Your task to perform on an android device: Open notification settings Image 0: 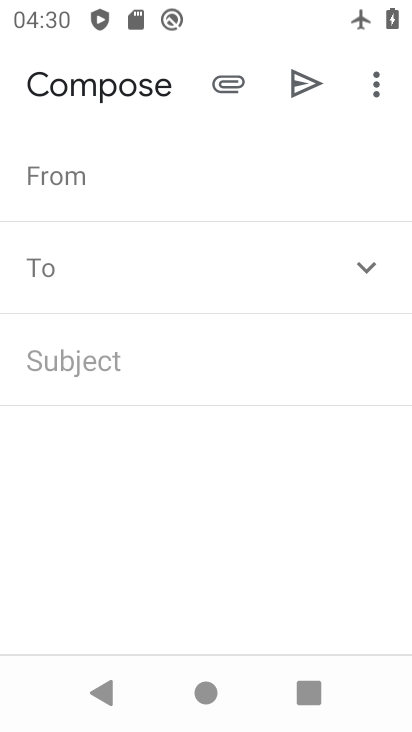
Step 0: click (234, 472)
Your task to perform on an android device: Open notification settings Image 1: 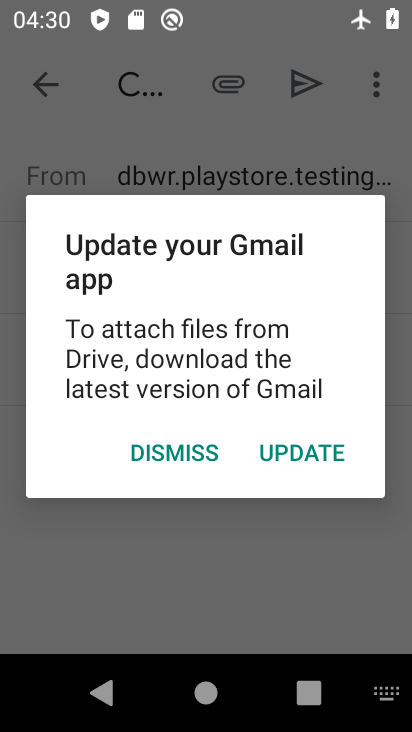
Step 1: press home button
Your task to perform on an android device: Open notification settings Image 2: 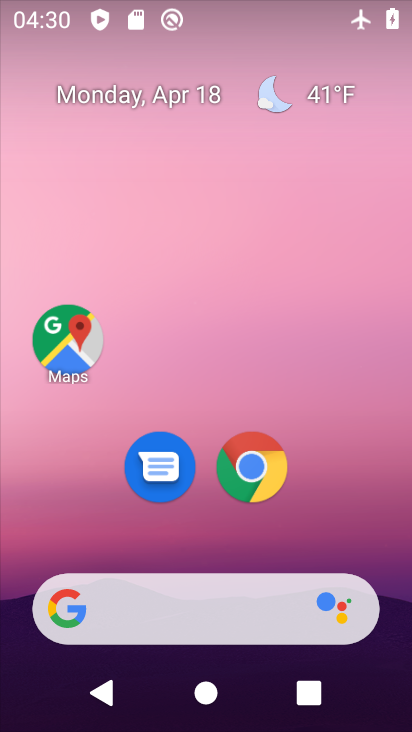
Step 2: drag from (187, 511) to (203, 307)
Your task to perform on an android device: Open notification settings Image 3: 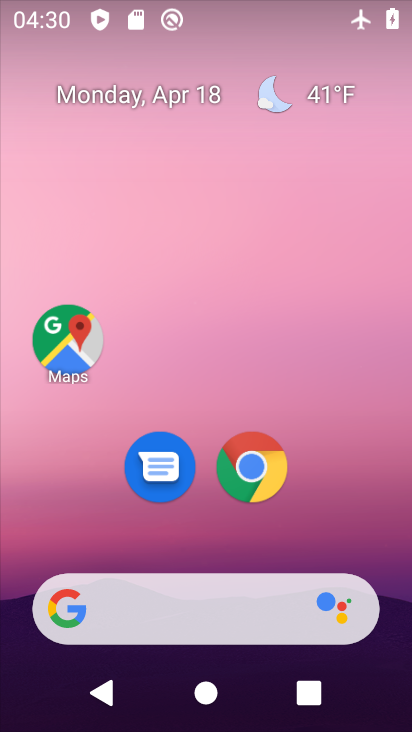
Step 3: drag from (213, 554) to (212, 199)
Your task to perform on an android device: Open notification settings Image 4: 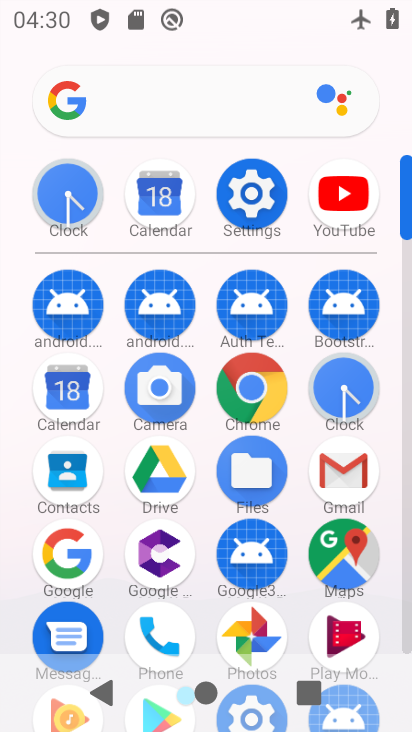
Step 4: click (226, 187)
Your task to perform on an android device: Open notification settings Image 5: 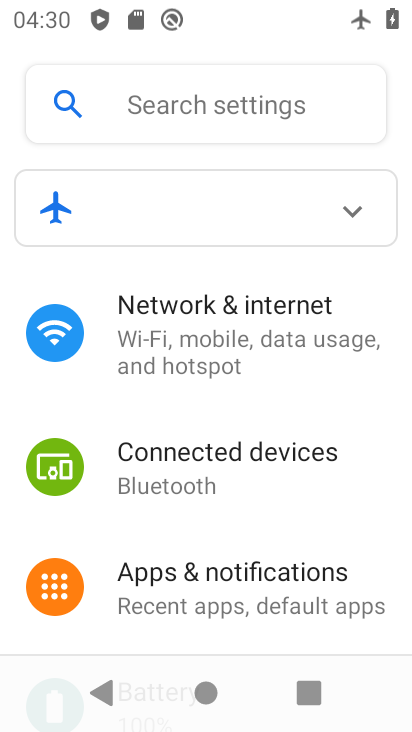
Step 5: drag from (223, 566) to (282, 340)
Your task to perform on an android device: Open notification settings Image 6: 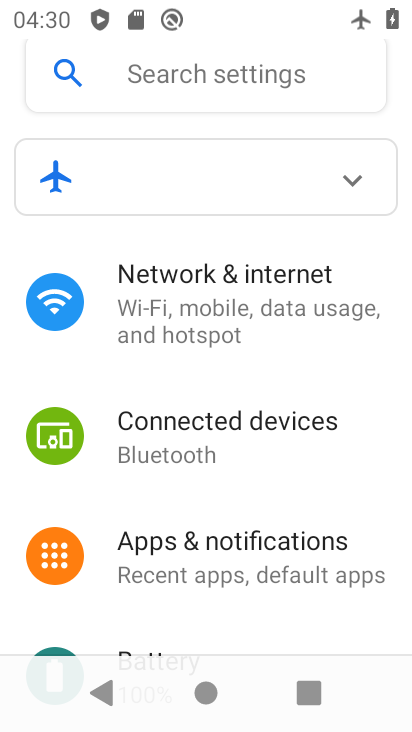
Step 6: click (254, 514)
Your task to perform on an android device: Open notification settings Image 7: 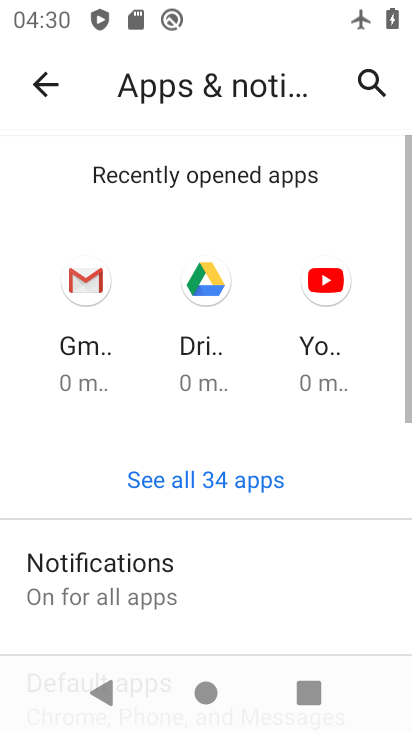
Step 7: drag from (253, 610) to (280, 305)
Your task to perform on an android device: Open notification settings Image 8: 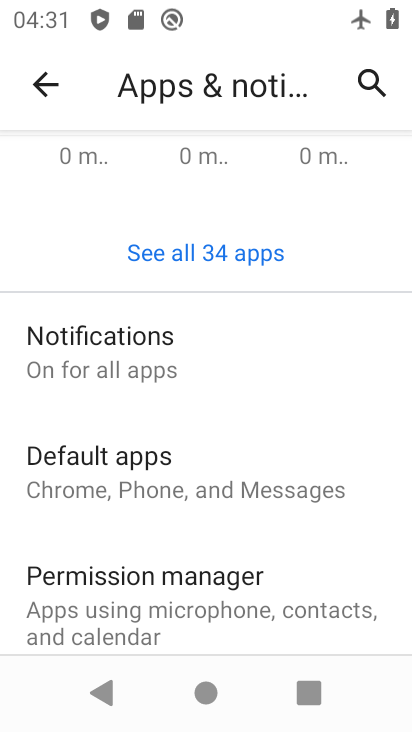
Step 8: drag from (257, 548) to (263, 243)
Your task to perform on an android device: Open notification settings Image 9: 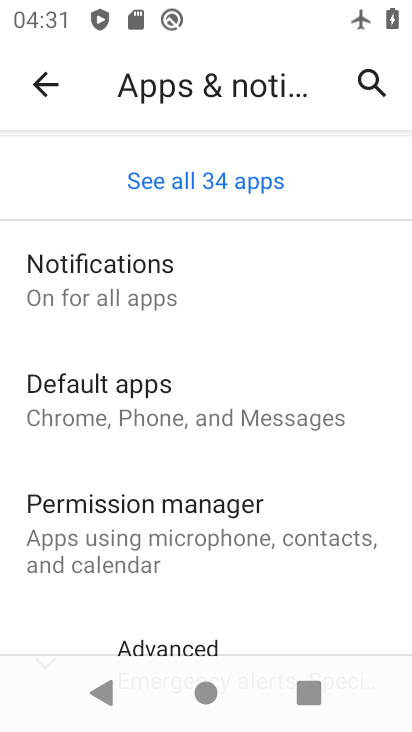
Step 9: drag from (264, 465) to (295, 213)
Your task to perform on an android device: Open notification settings Image 10: 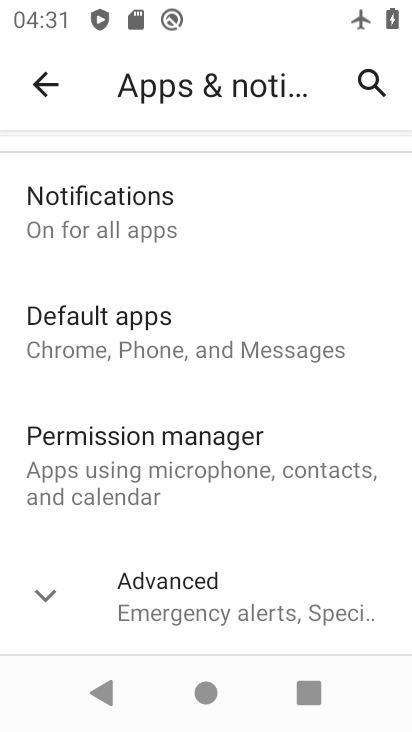
Step 10: click (189, 219)
Your task to perform on an android device: Open notification settings Image 11: 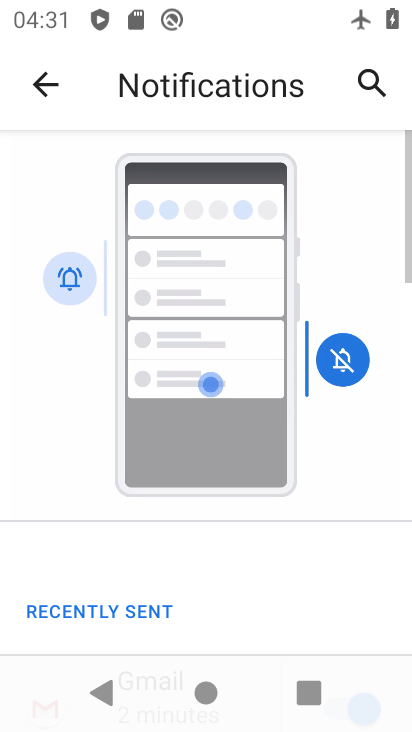
Step 11: drag from (203, 502) to (198, 146)
Your task to perform on an android device: Open notification settings Image 12: 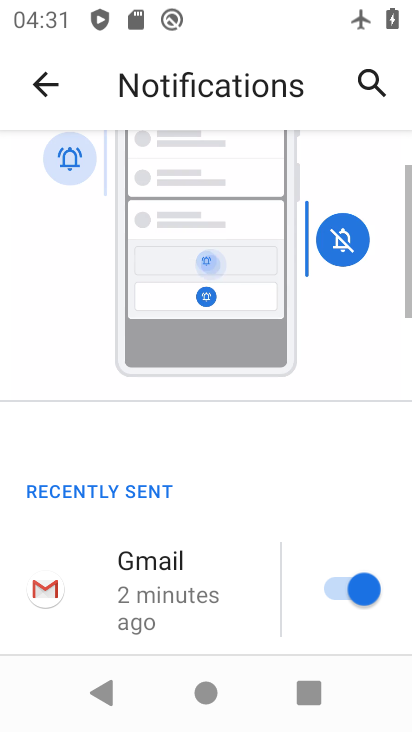
Step 12: drag from (226, 435) to (226, 123)
Your task to perform on an android device: Open notification settings Image 13: 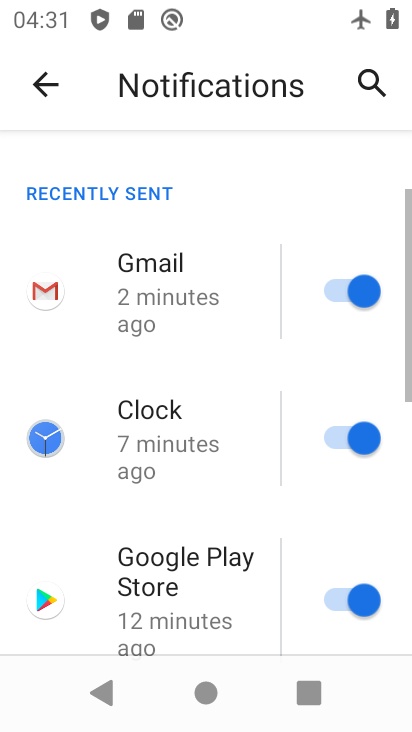
Step 13: drag from (225, 470) to (245, 148)
Your task to perform on an android device: Open notification settings Image 14: 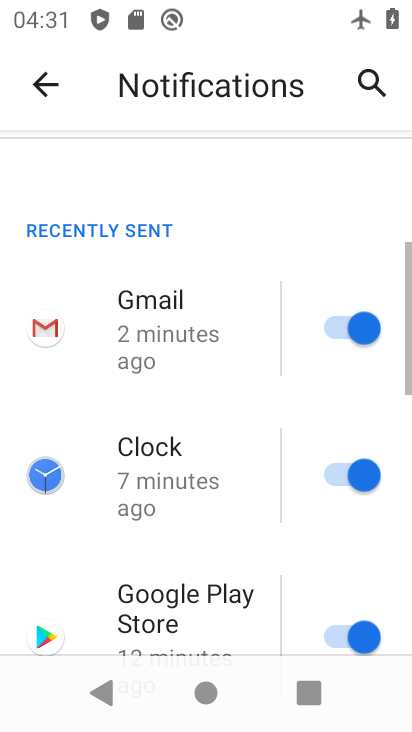
Step 14: click (262, 213)
Your task to perform on an android device: Open notification settings Image 15: 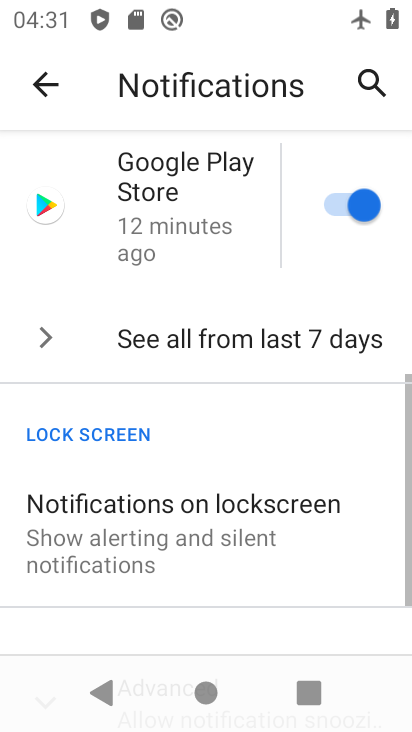
Step 15: task complete